Your task to perform on an android device: change the clock style Image 0: 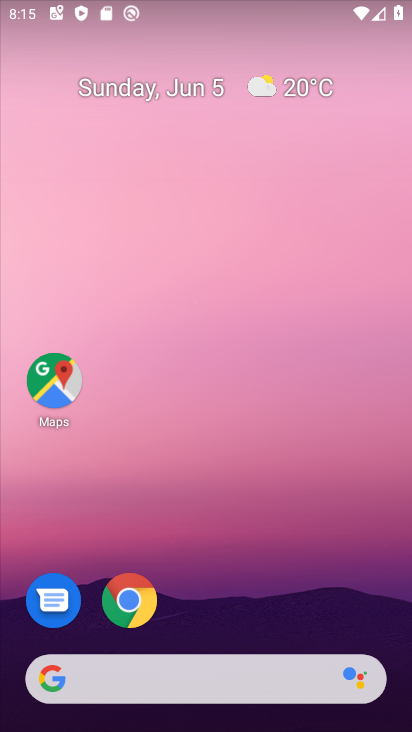
Step 0: drag from (207, 624) to (281, 190)
Your task to perform on an android device: change the clock style Image 1: 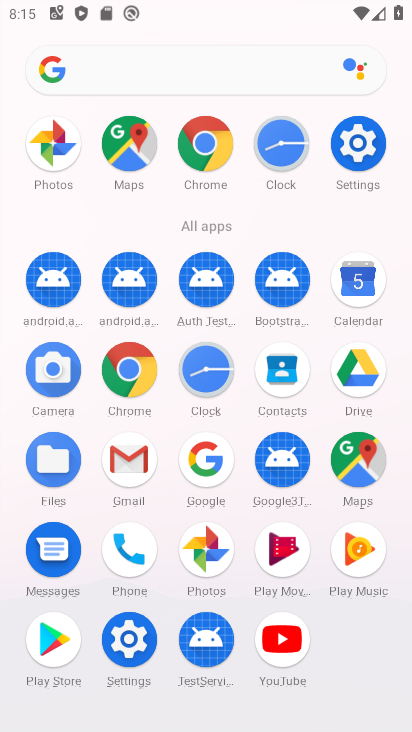
Step 1: click (211, 364)
Your task to perform on an android device: change the clock style Image 2: 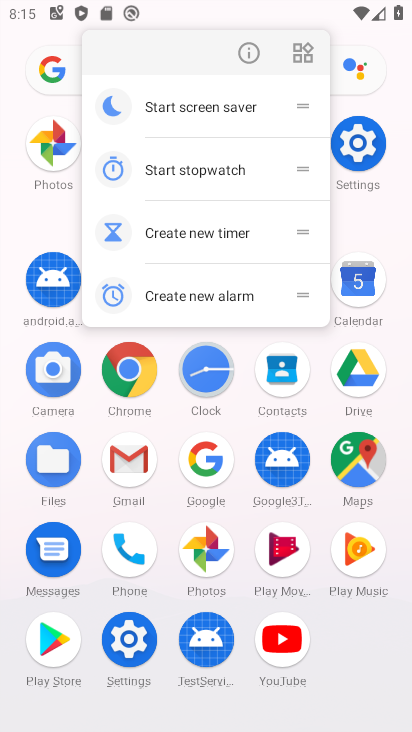
Step 2: click (226, 362)
Your task to perform on an android device: change the clock style Image 3: 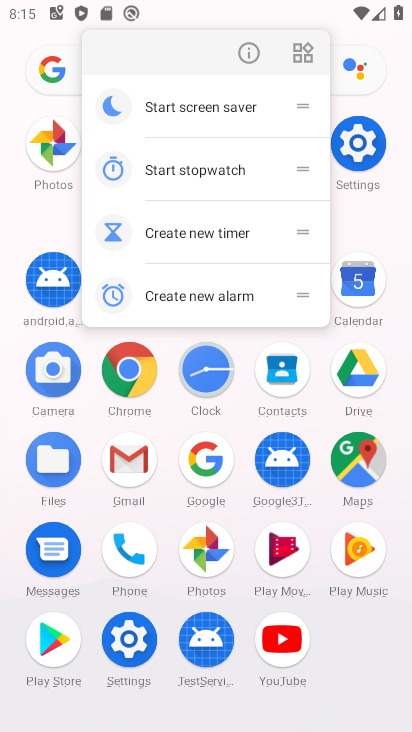
Step 3: click (205, 377)
Your task to perform on an android device: change the clock style Image 4: 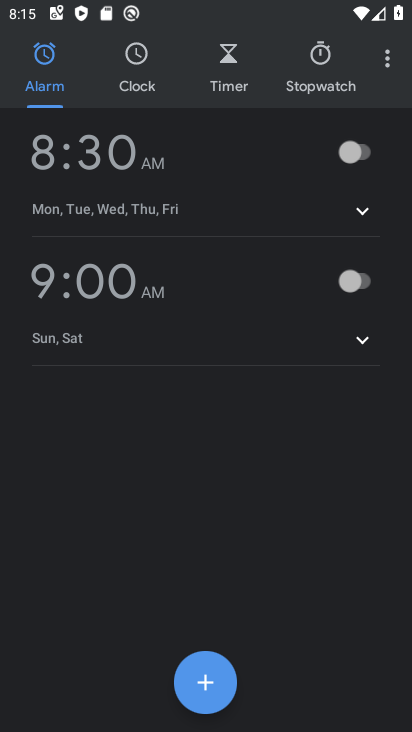
Step 4: click (393, 55)
Your task to perform on an android device: change the clock style Image 5: 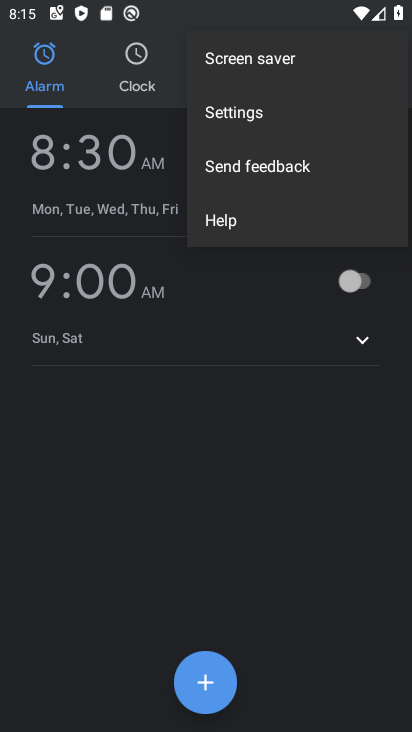
Step 5: click (349, 118)
Your task to perform on an android device: change the clock style Image 6: 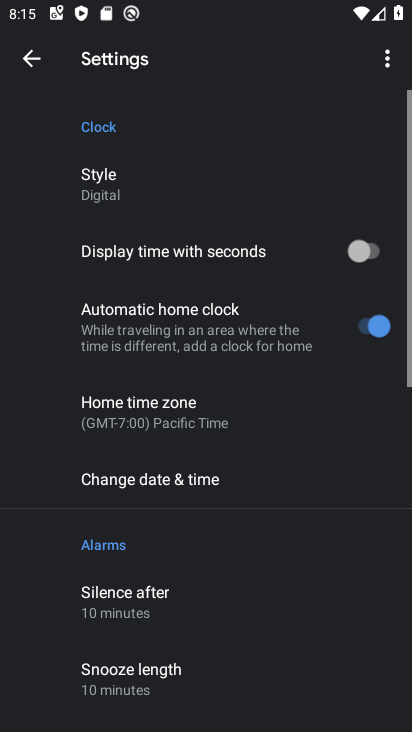
Step 6: click (208, 196)
Your task to perform on an android device: change the clock style Image 7: 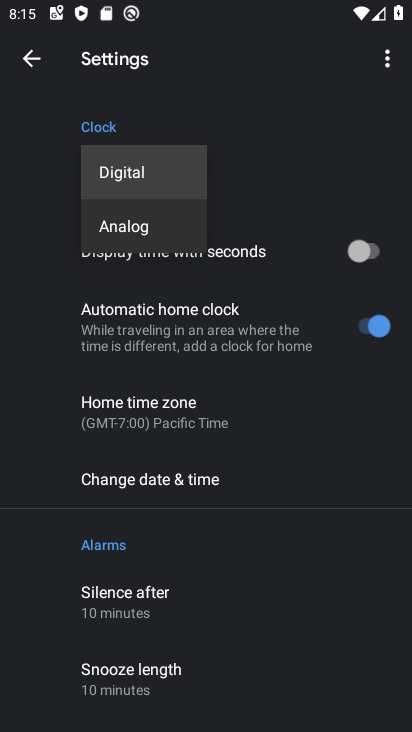
Step 7: click (143, 227)
Your task to perform on an android device: change the clock style Image 8: 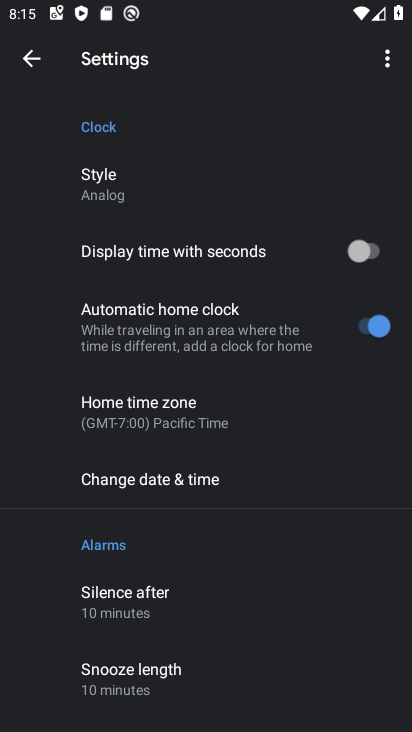
Step 8: task complete